Your task to perform on an android device: Go to Amazon Image 0: 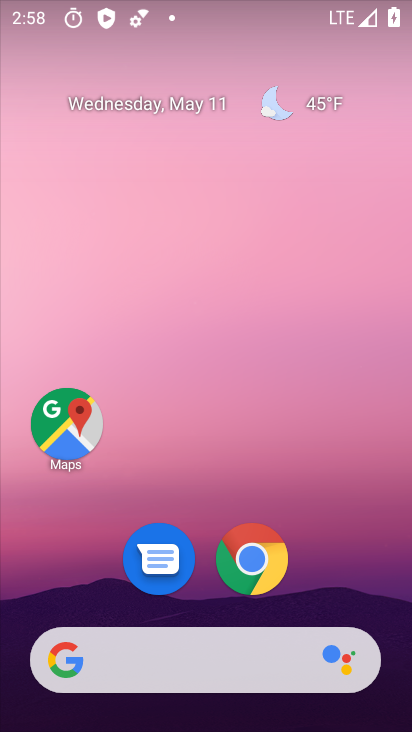
Step 0: click (272, 574)
Your task to perform on an android device: Go to Amazon Image 1: 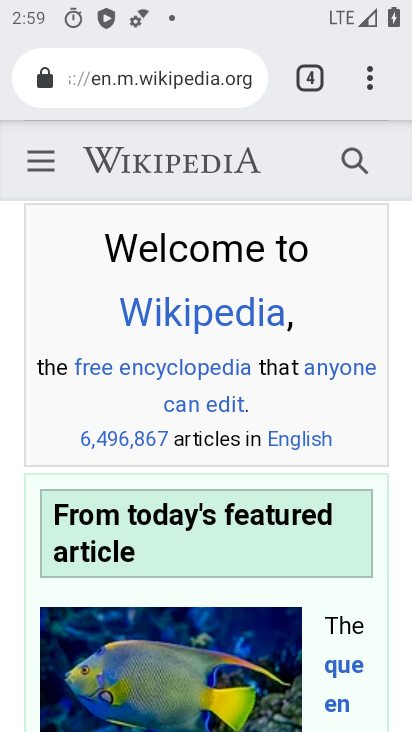
Step 1: click (301, 64)
Your task to perform on an android device: Go to Amazon Image 2: 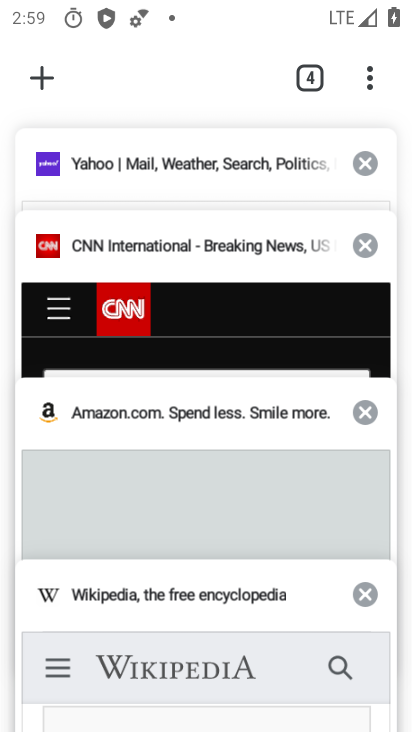
Step 2: click (127, 407)
Your task to perform on an android device: Go to Amazon Image 3: 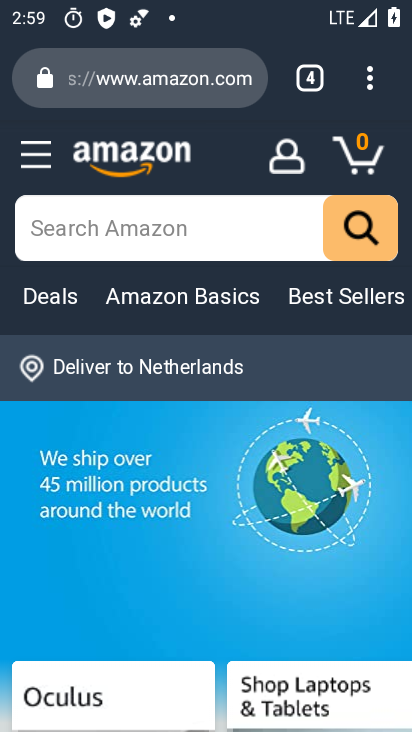
Step 3: task complete